Your task to perform on an android device: Go to battery settings Image 0: 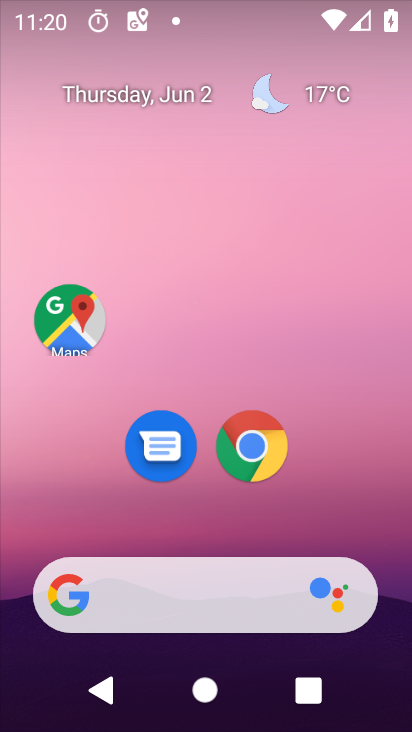
Step 0: drag from (377, 503) to (371, 223)
Your task to perform on an android device: Go to battery settings Image 1: 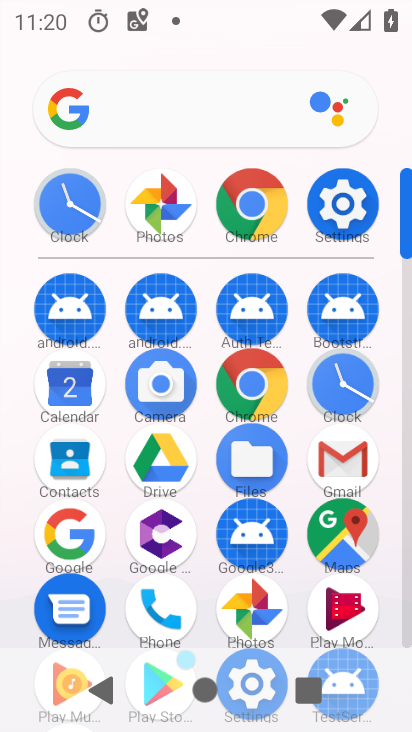
Step 1: click (355, 224)
Your task to perform on an android device: Go to battery settings Image 2: 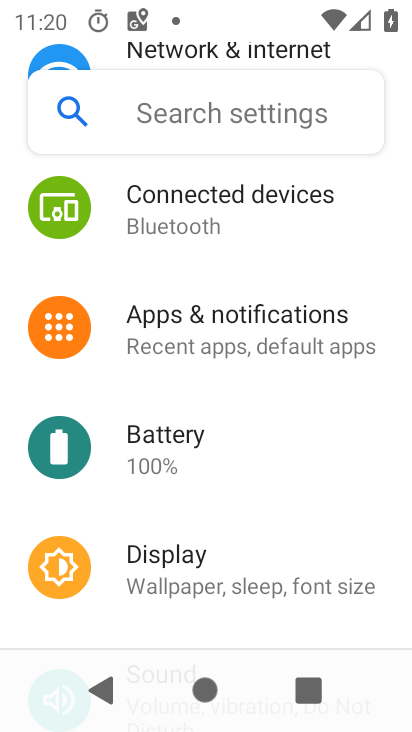
Step 2: click (241, 450)
Your task to perform on an android device: Go to battery settings Image 3: 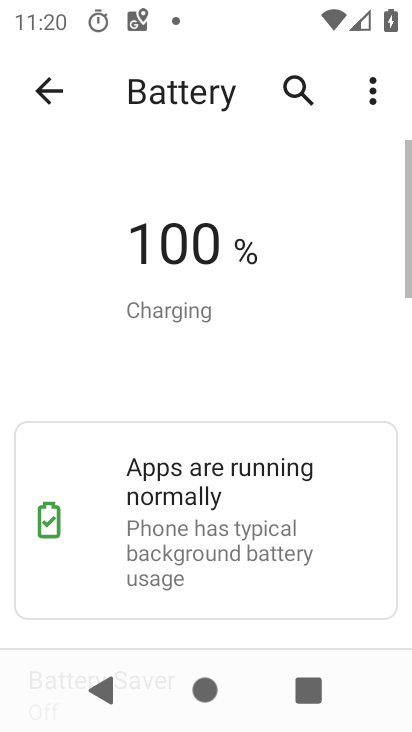
Step 3: task complete